Your task to perform on an android device: Empty the shopping cart on ebay.com. Add alienware aurora to the cart on ebay.com Image 0: 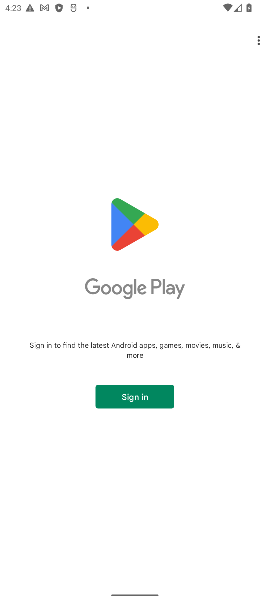
Step 0: press home button
Your task to perform on an android device: Empty the shopping cart on ebay.com. Add alienware aurora to the cart on ebay.com Image 1: 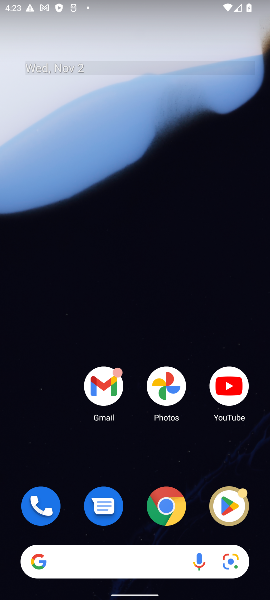
Step 1: click (166, 523)
Your task to perform on an android device: Empty the shopping cart on ebay.com. Add alienware aurora to the cart on ebay.com Image 2: 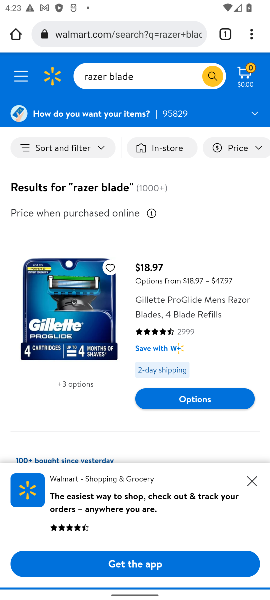
Step 2: click (141, 31)
Your task to perform on an android device: Empty the shopping cart on ebay.com. Add alienware aurora to the cart on ebay.com Image 3: 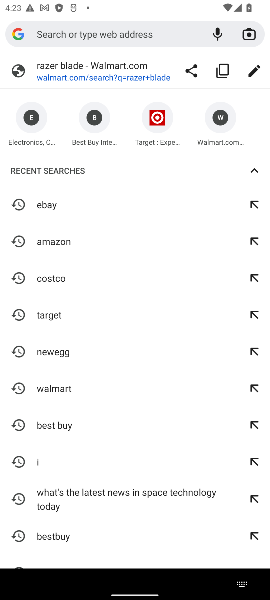
Step 3: type "ebay"
Your task to perform on an android device: Empty the shopping cart on ebay.com. Add alienware aurora to the cart on ebay.com Image 4: 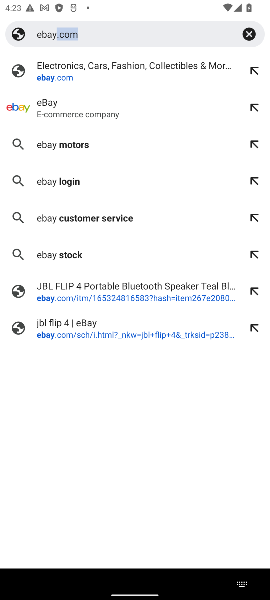
Step 4: click (142, 82)
Your task to perform on an android device: Empty the shopping cart on ebay.com. Add alienware aurora to the cart on ebay.com Image 5: 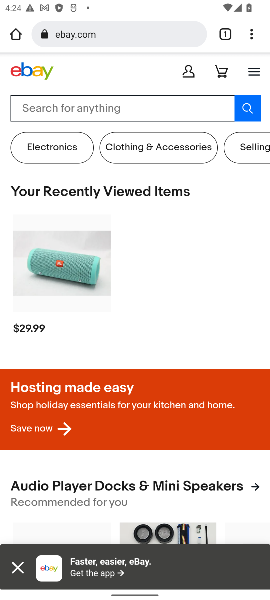
Step 5: click (65, 108)
Your task to perform on an android device: Empty the shopping cart on ebay.com. Add alienware aurora to the cart on ebay.com Image 6: 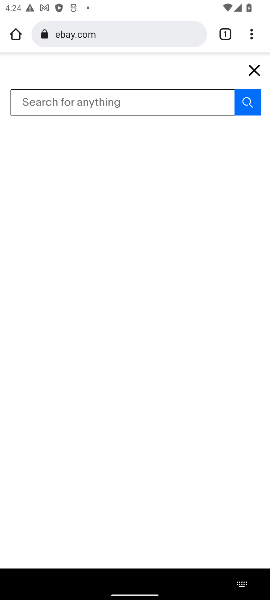
Step 6: type "alienware aurora"
Your task to perform on an android device: Empty the shopping cart on ebay.com. Add alienware aurora to the cart on ebay.com Image 7: 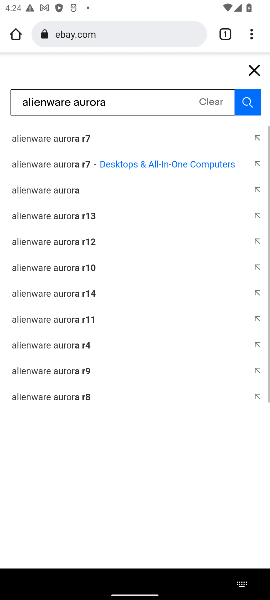
Step 7: press enter
Your task to perform on an android device: Empty the shopping cart on ebay.com. Add alienware aurora to the cart on ebay.com Image 8: 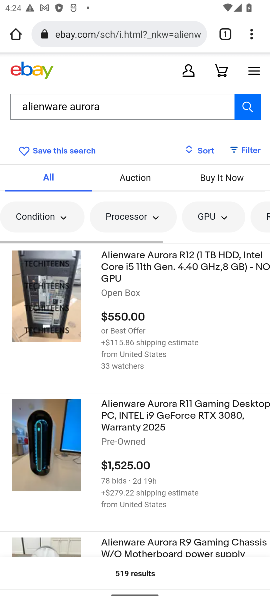
Step 8: click (161, 261)
Your task to perform on an android device: Empty the shopping cart on ebay.com. Add alienware aurora to the cart on ebay.com Image 9: 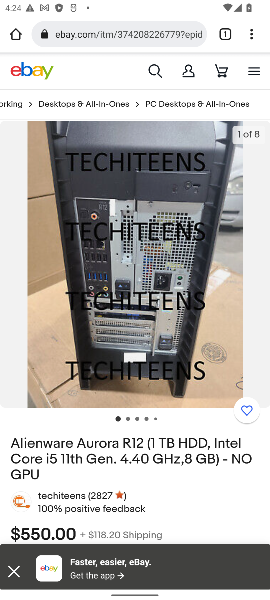
Step 9: drag from (190, 516) to (134, 202)
Your task to perform on an android device: Empty the shopping cart on ebay.com. Add alienware aurora to the cart on ebay.com Image 10: 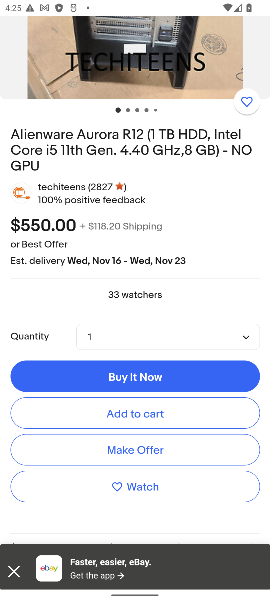
Step 10: click (181, 411)
Your task to perform on an android device: Empty the shopping cart on ebay.com. Add alienware aurora to the cart on ebay.com Image 11: 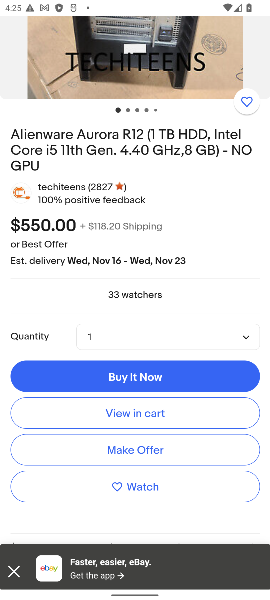
Step 11: task complete